Your task to perform on an android device: Check the weather Image 0: 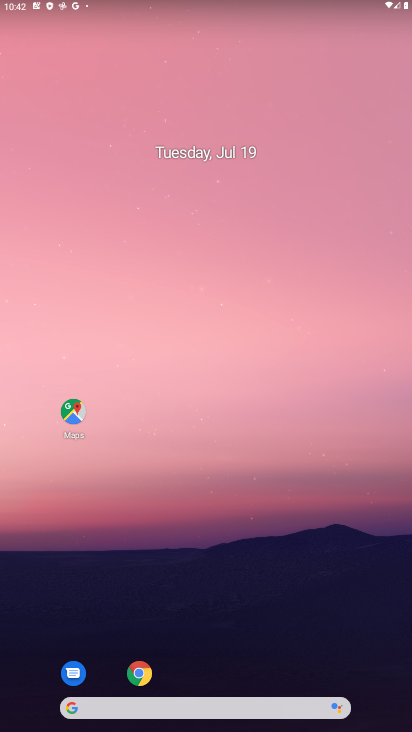
Step 0: drag from (232, 671) to (122, 2)
Your task to perform on an android device: Check the weather Image 1: 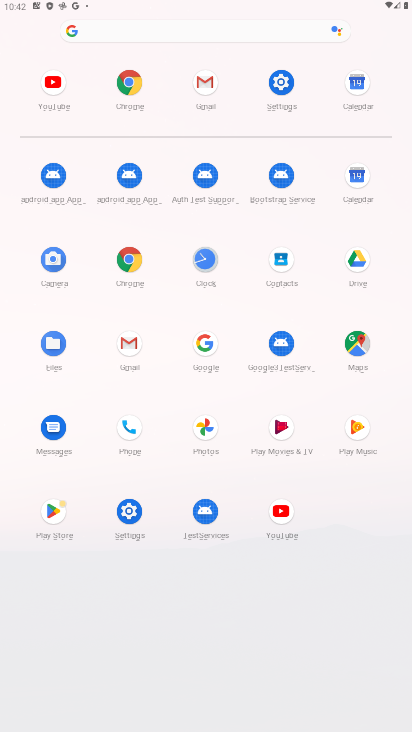
Step 1: click (194, 49)
Your task to perform on an android device: Check the weather Image 2: 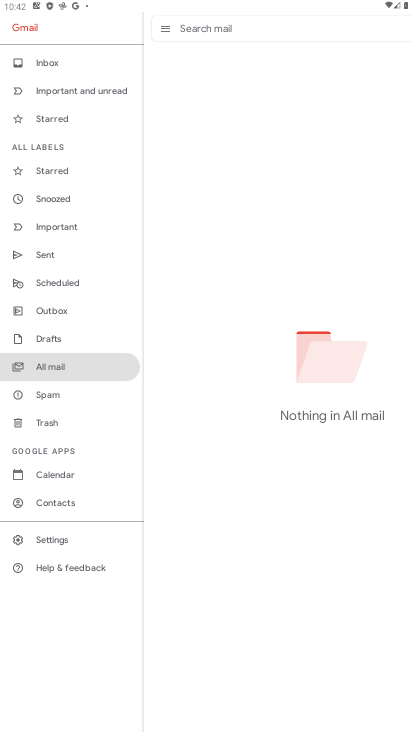
Step 2: click (203, 37)
Your task to perform on an android device: Check the weather Image 3: 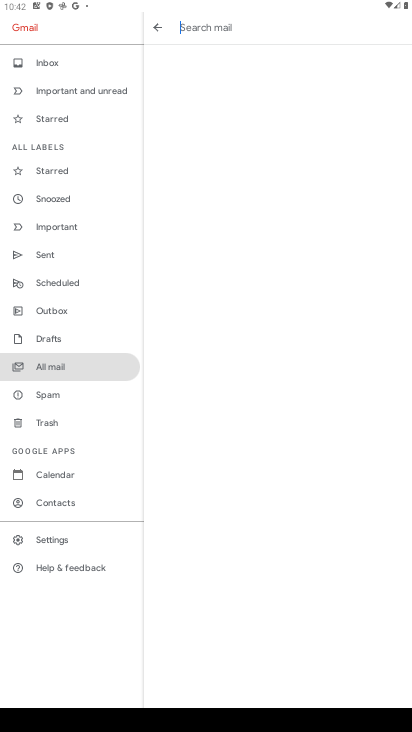
Step 3: press home button
Your task to perform on an android device: Check the weather Image 4: 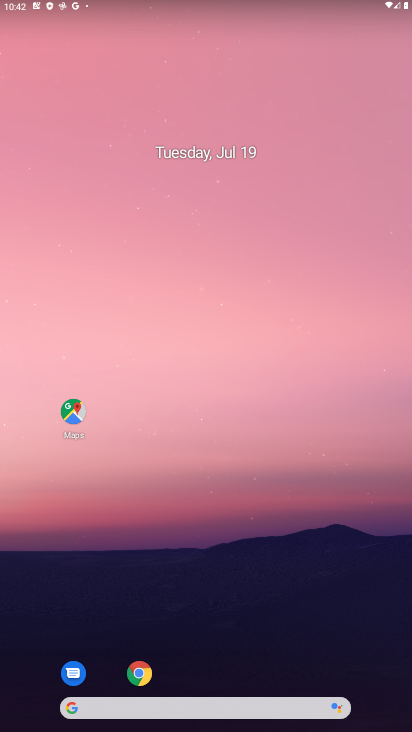
Step 4: click (220, 707)
Your task to perform on an android device: Check the weather Image 5: 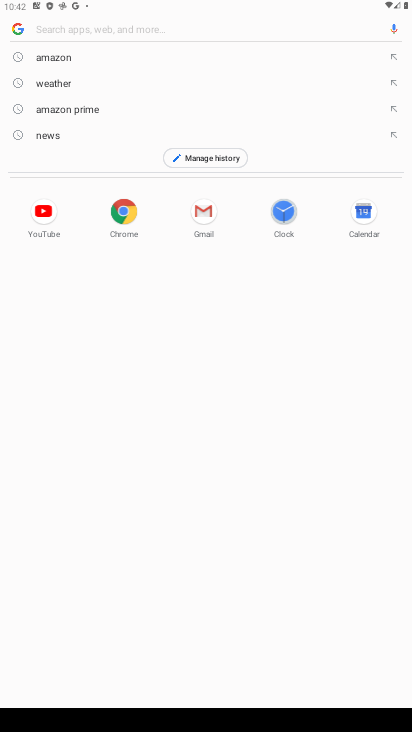
Step 5: type "weather"
Your task to perform on an android device: Check the weather Image 6: 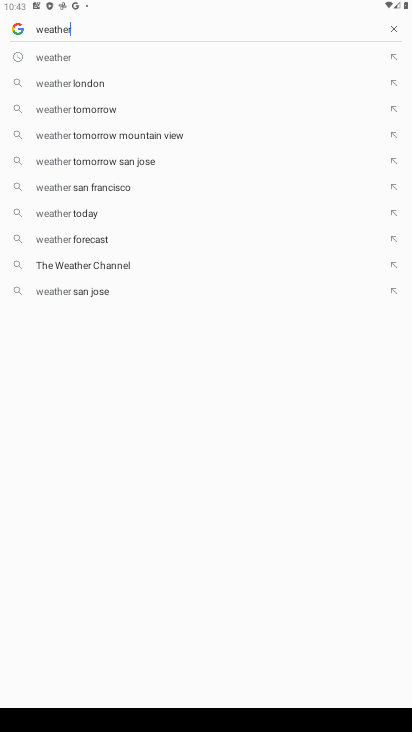
Step 6: click (88, 66)
Your task to perform on an android device: Check the weather Image 7: 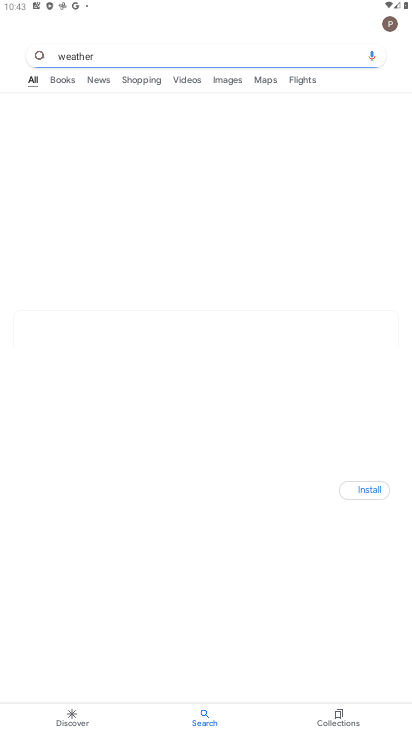
Step 7: task complete